Your task to perform on an android device: Open eBay Image 0: 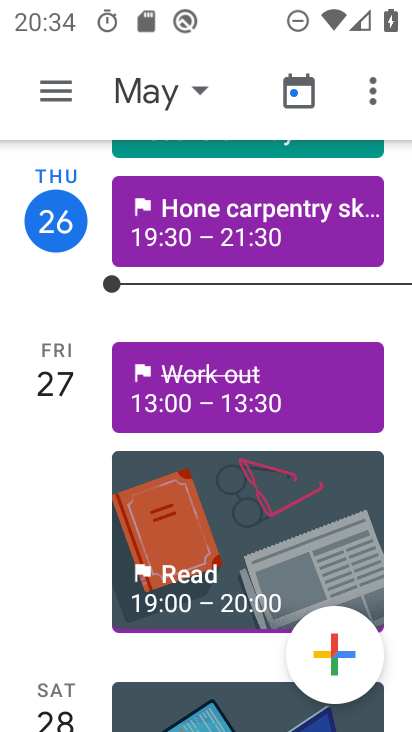
Step 0: press home button
Your task to perform on an android device: Open eBay Image 1: 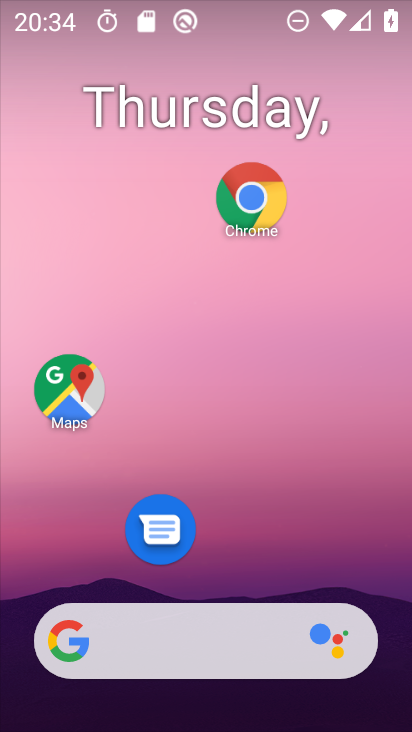
Step 1: click (258, 209)
Your task to perform on an android device: Open eBay Image 2: 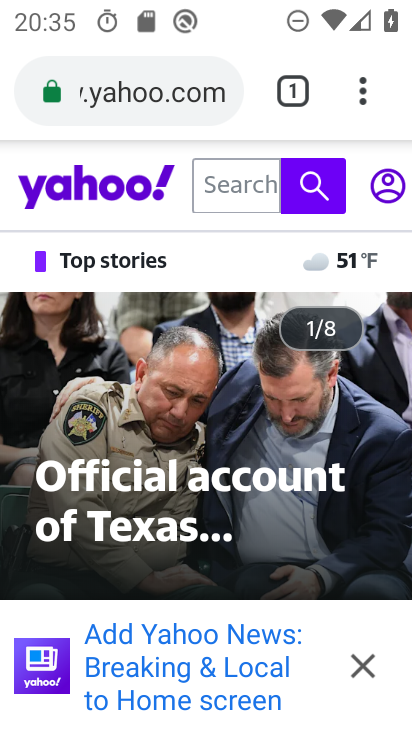
Step 2: press back button
Your task to perform on an android device: Open eBay Image 3: 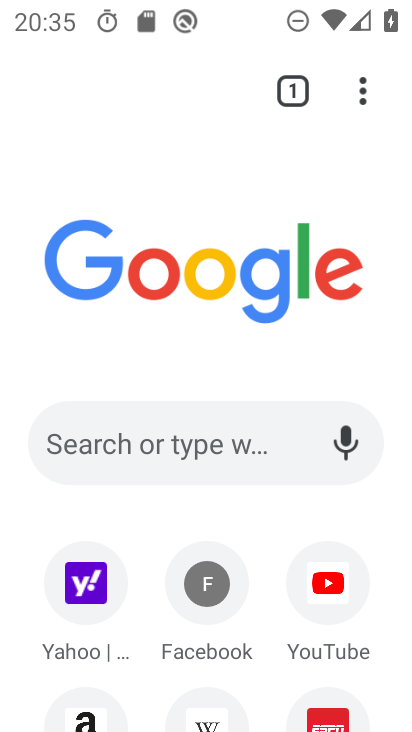
Step 3: drag from (216, 680) to (215, 389)
Your task to perform on an android device: Open eBay Image 4: 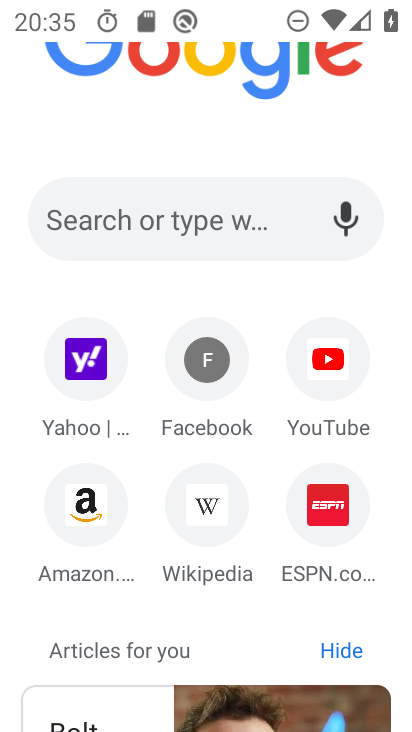
Step 4: click (131, 218)
Your task to perform on an android device: Open eBay Image 5: 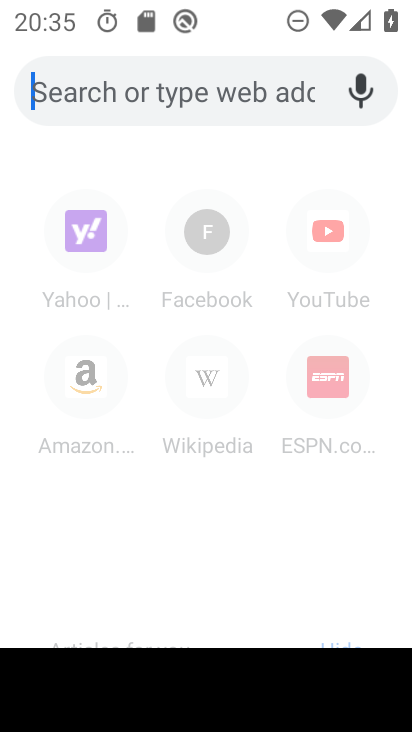
Step 5: type "www.ebay.com"
Your task to perform on an android device: Open eBay Image 6: 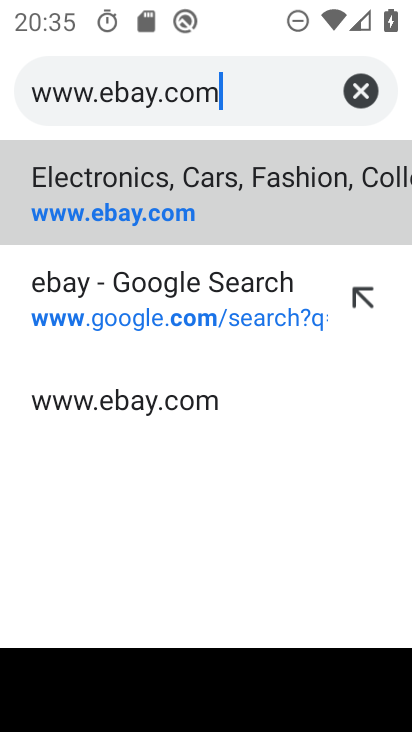
Step 6: click (175, 236)
Your task to perform on an android device: Open eBay Image 7: 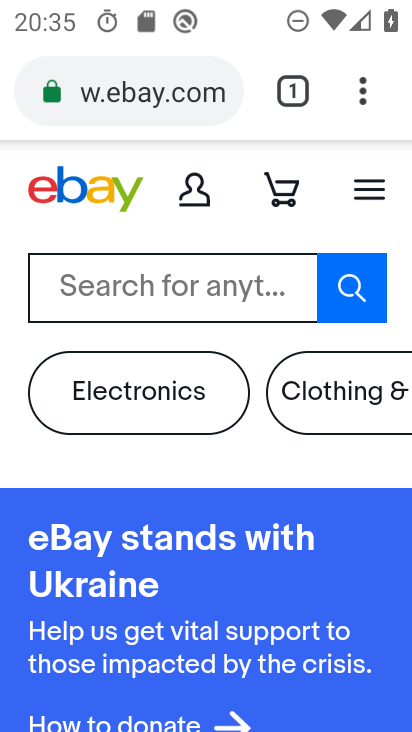
Step 7: task complete